Your task to perform on an android device: install app "Google Drive" Image 0: 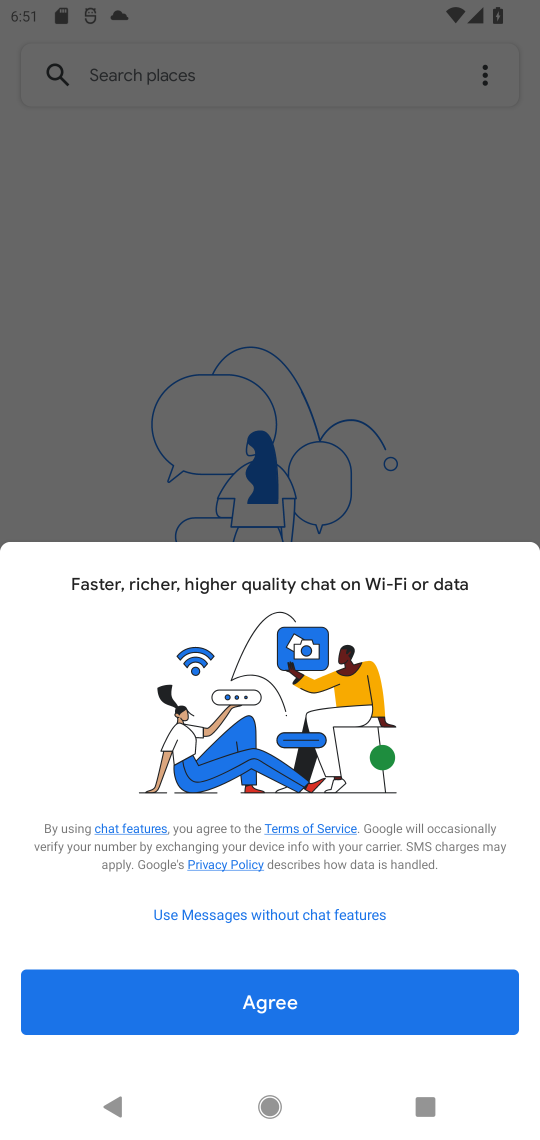
Step 0: press home button
Your task to perform on an android device: install app "Google Drive" Image 1: 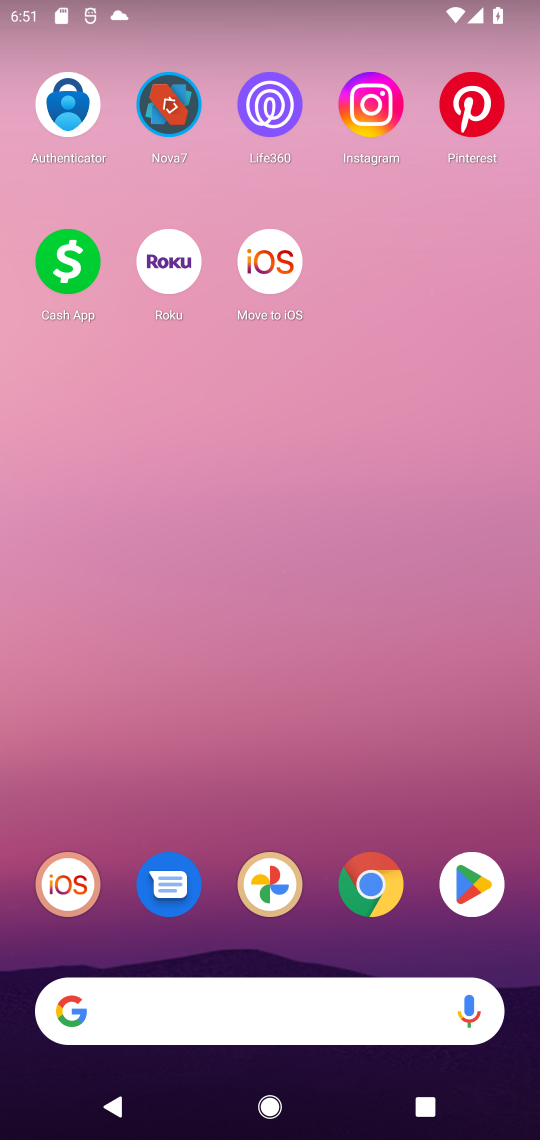
Step 1: click (469, 876)
Your task to perform on an android device: install app "Google Drive" Image 2: 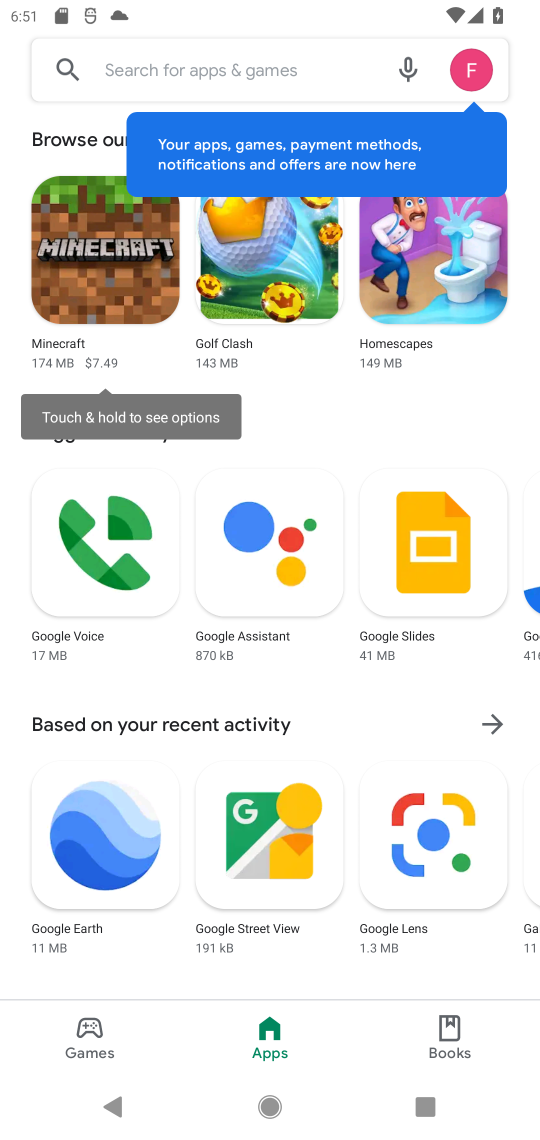
Step 2: click (302, 69)
Your task to perform on an android device: install app "Google Drive" Image 3: 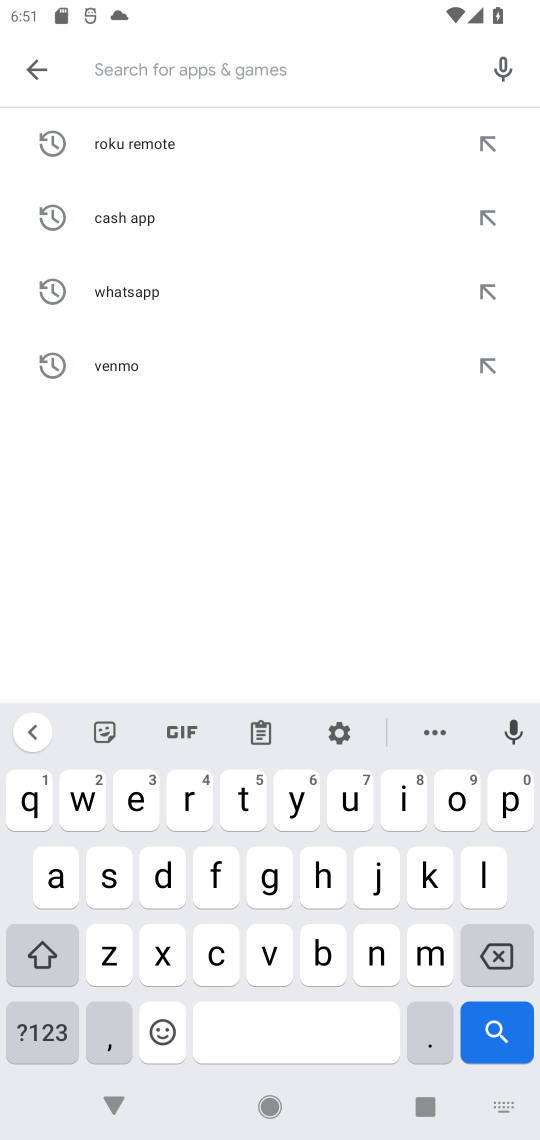
Step 3: click (158, 886)
Your task to perform on an android device: install app "Google Drive" Image 4: 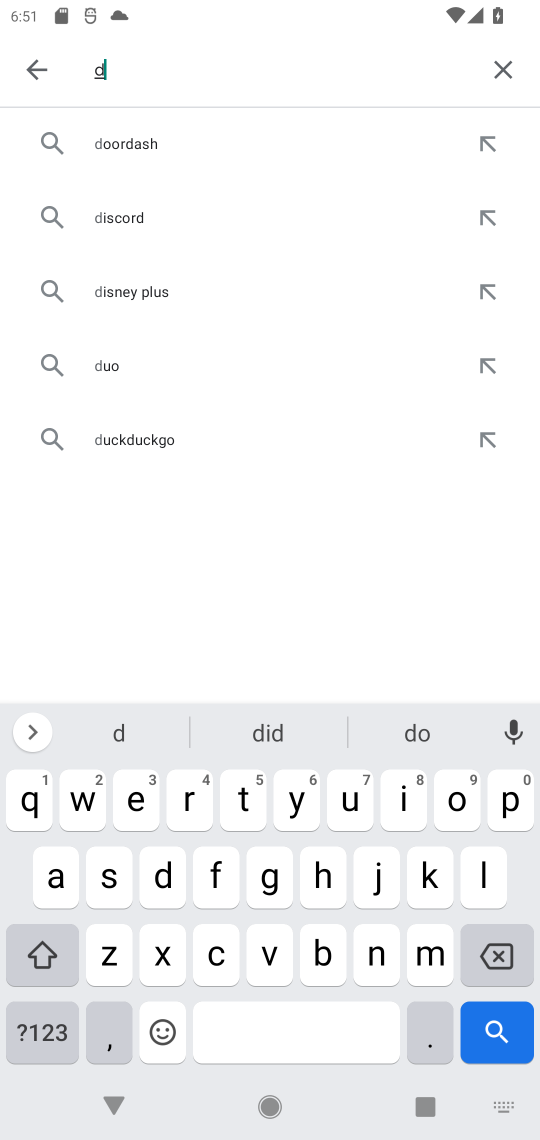
Step 4: click (187, 800)
Your task to perform on an android device: install app "Google Drive" Image 5: 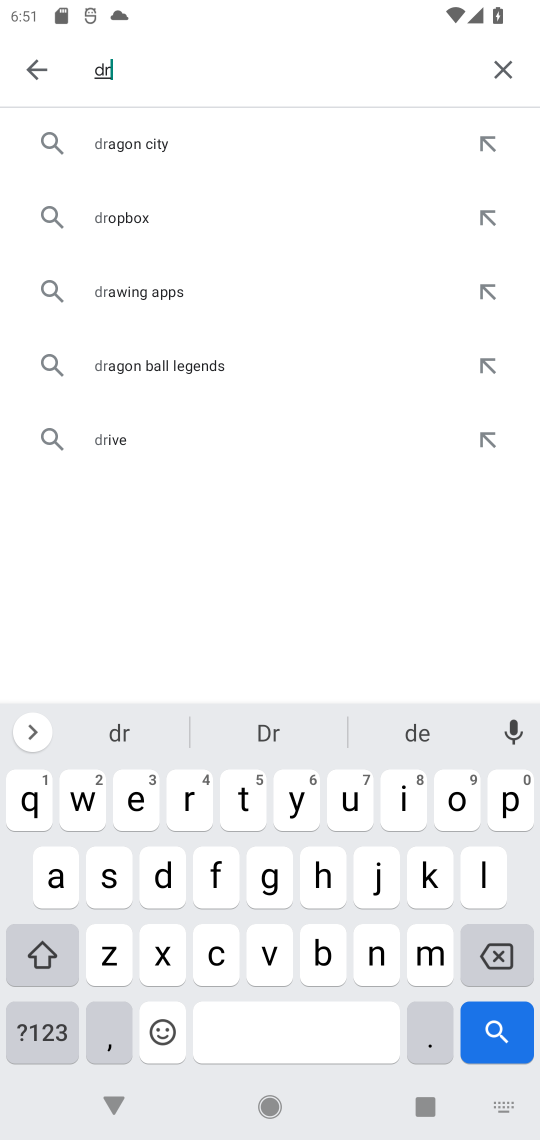
Step 5: click (404, 802)
Your task to perform on an android device: install app "Google Drive" Image 6: 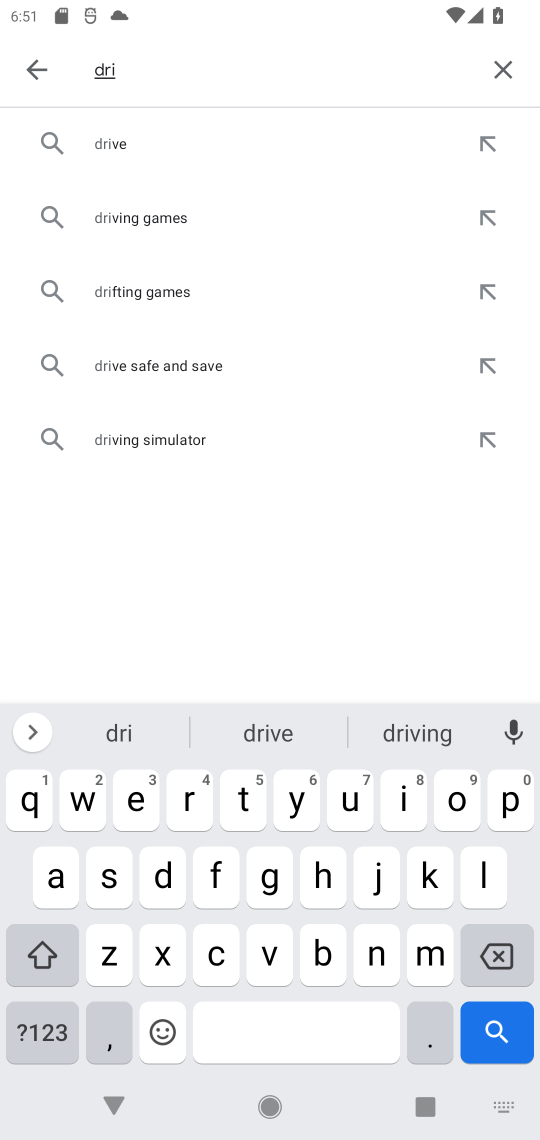
Step 6: click (125, 146)
Your task to perform on an android device: install app "Google Drive" Image 7: 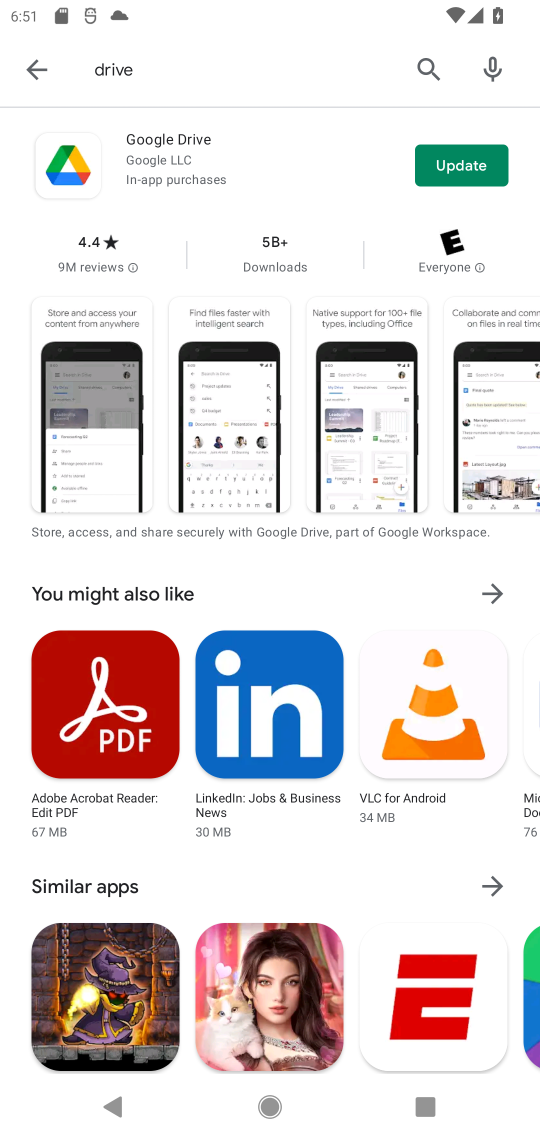
Step 7: click (458, 176)
Your task to perform on an android device: install app "Google Drive" Image 8: 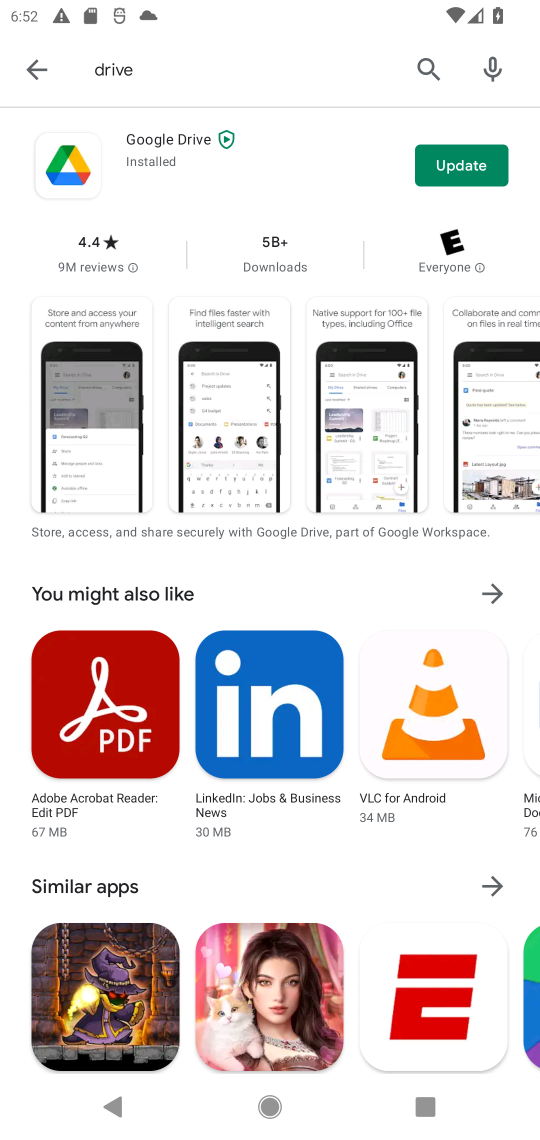
Step 8: click (464, 165)
Your task to perform on an android device: install app "Google Drive" Image 9: 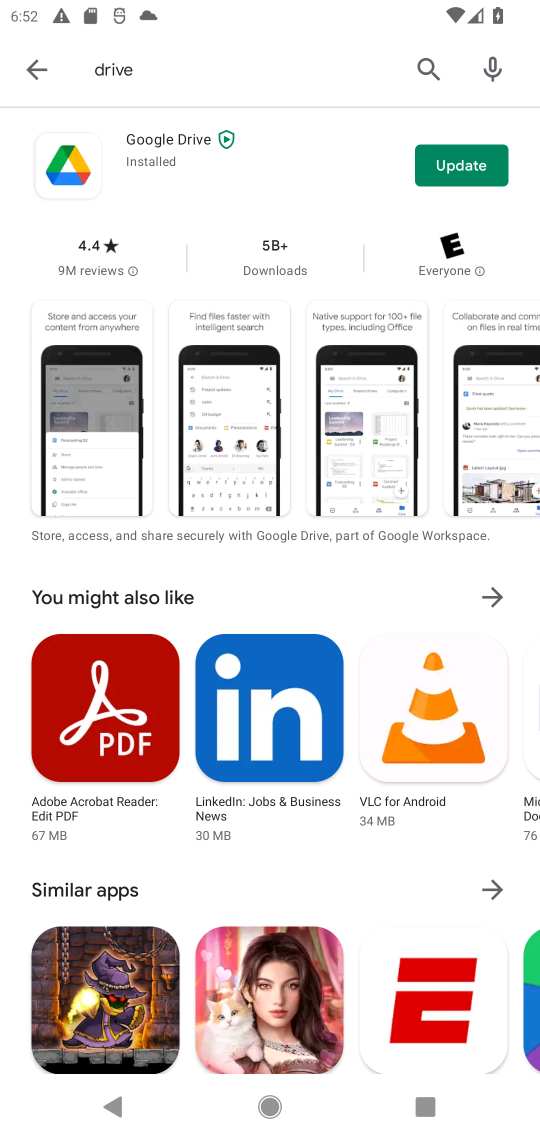
Step 9: click (110, 148)
Your task to perform on an android device: install app "Google Drive" Image 10: 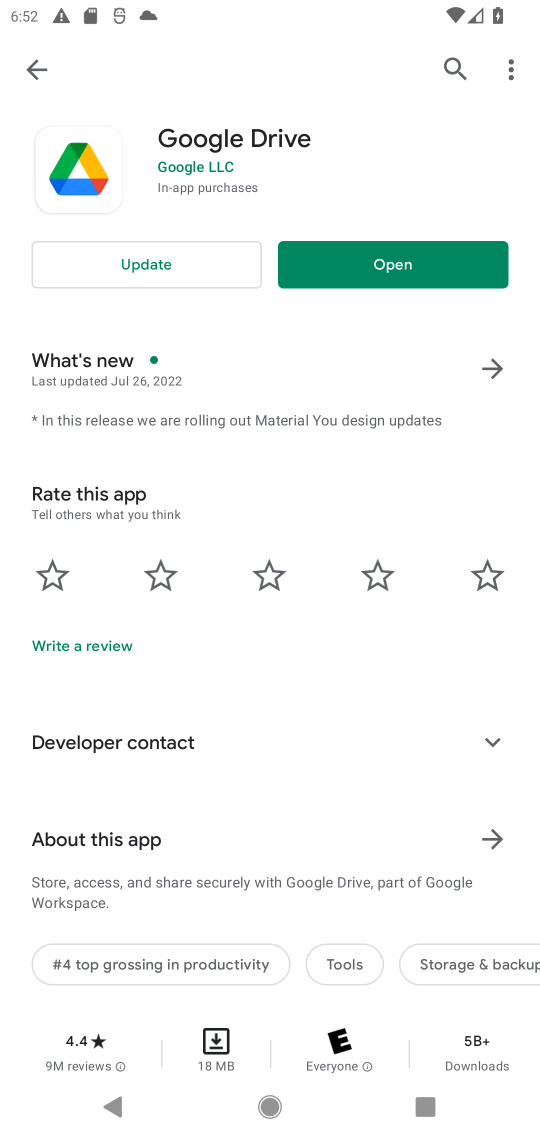
Step 10: task complete